Your task to perform on an android device: open app "Yahoo Mail" (install if not already installed) and enter user name: "lawsuit@inbox.com" and password: "pooch" Image 0: 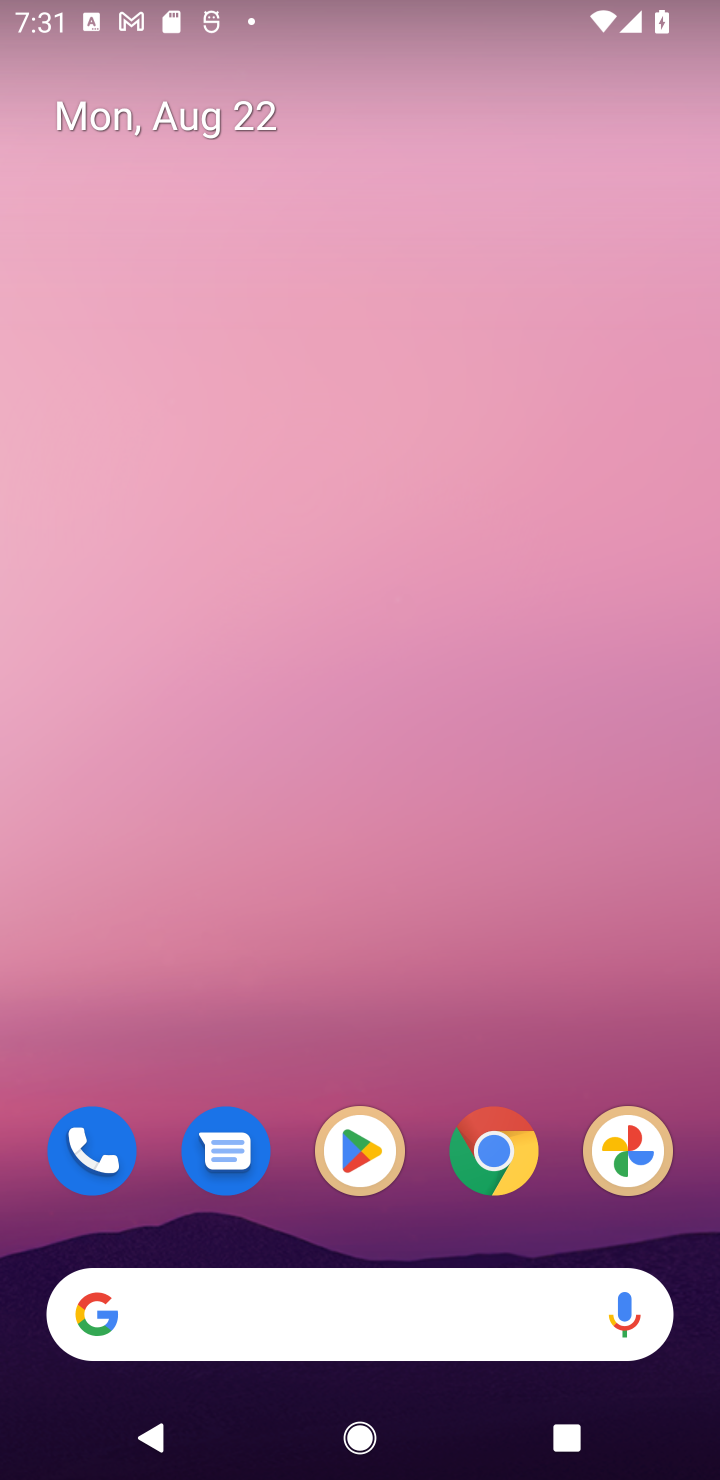
Step 0: press home button
Your task to perform on an android device: open app "Yahoo Mail" (install if not already installed) and enter user name: "lawsuit@inbox.com" and password: "pooch" Image 1: 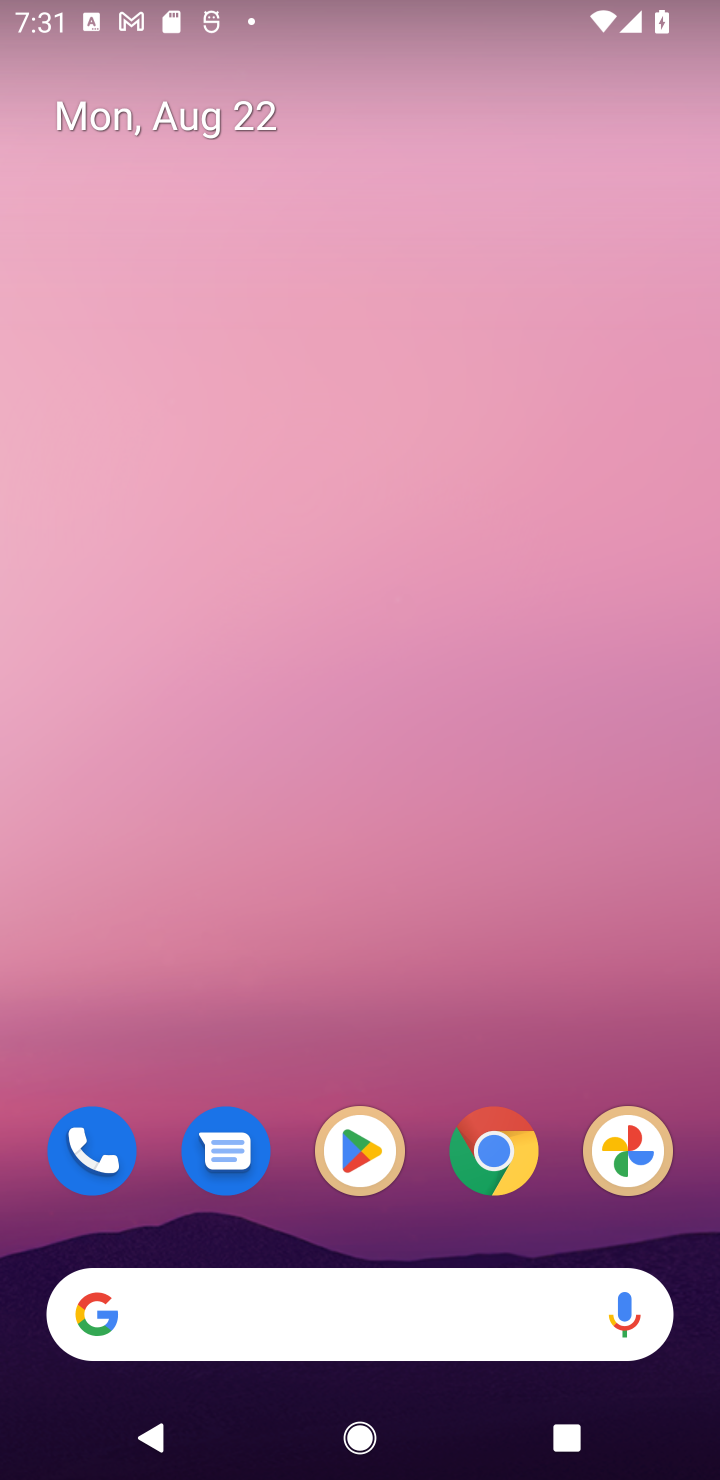
Step 1: click (349, 1141)
Your task to perform on an android device: open app "Yahoo Mail" (install if not already installed) and enter user name: "lawsuit@inbox.com" and password: "pooch" Image 2: 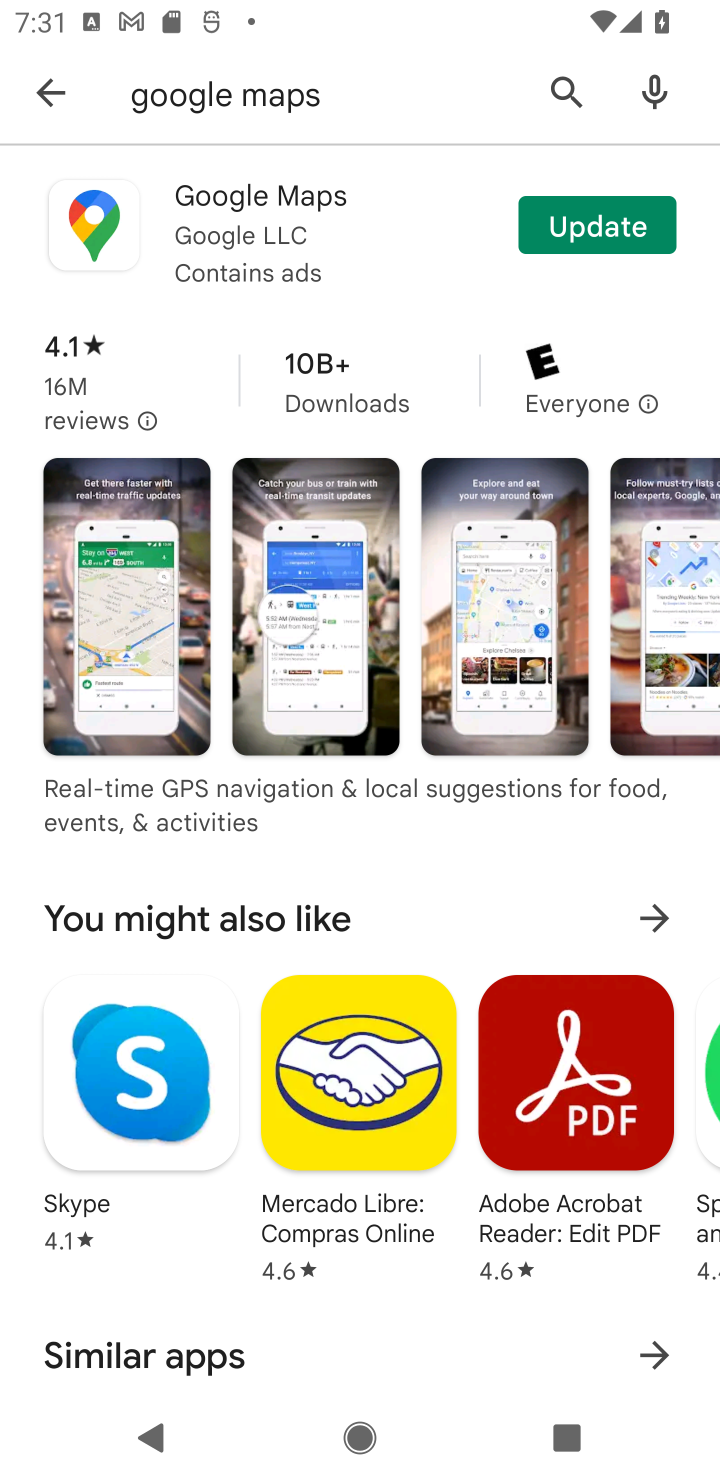
Step 2: click (569, 83)
Your task to perform on an android device: open app "Yahoo Mail" (install if not already installed) and enter user name: "lawsuit@inbox.com" and password: "pooch" Image 3: 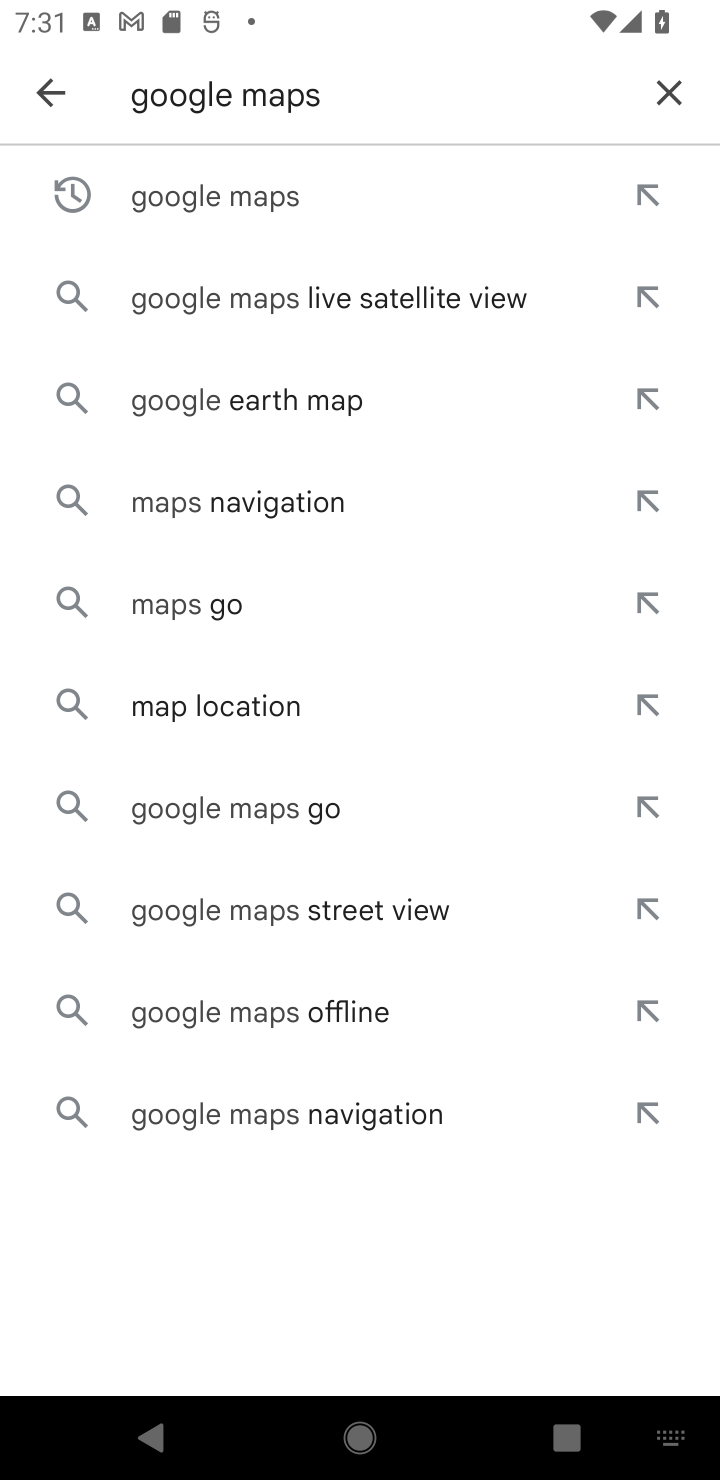
Step 3: click (664, 103)
Your task to perform on an android device: open app "Yahoo Mail" (install if not already installed) and enter user name: "lawsuit@inbox.com" and password: "pooch" Image 4: 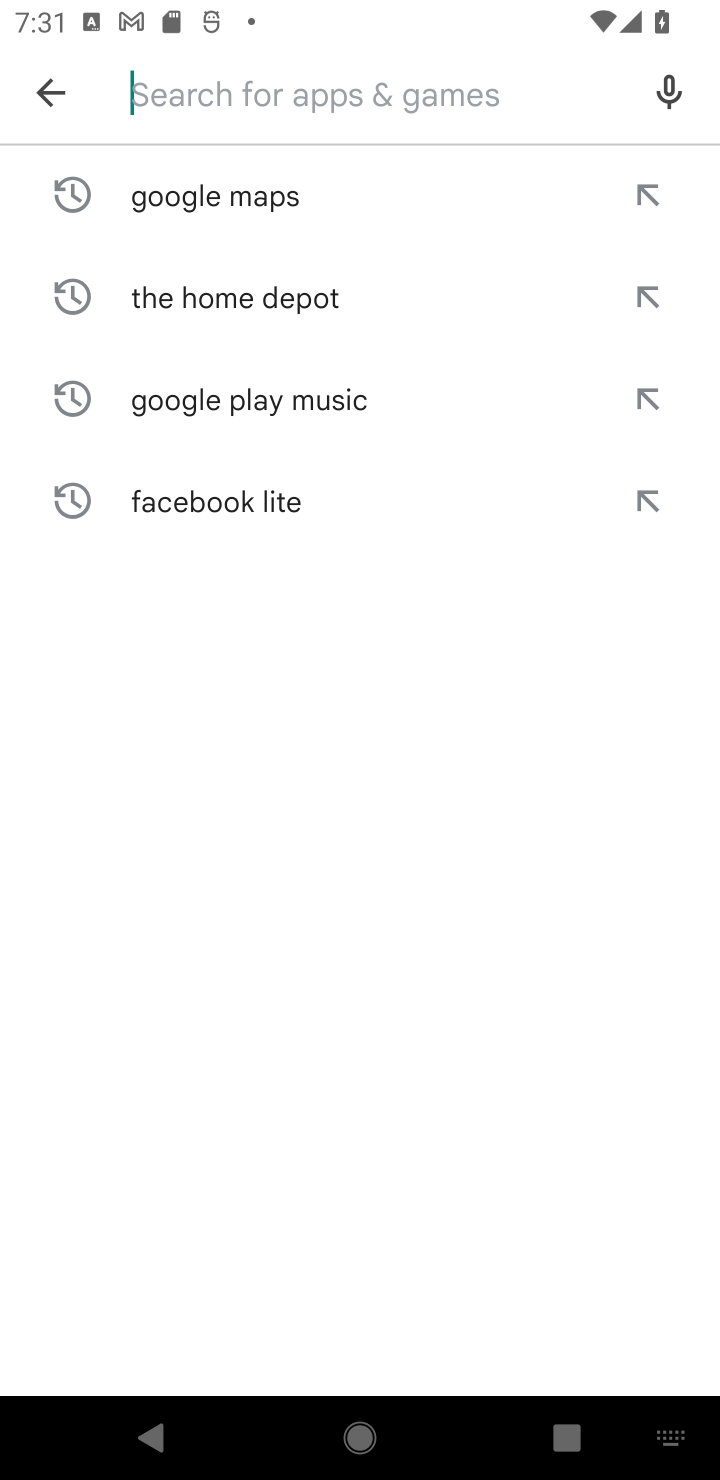
Step 4: type "Yahoo Mail"
Your task to perform on an android device: open app "Yahoo Mail" (install if not already installed) and enter user name: "lawsuit@inbox.com" and password: "pooch" Image 5: 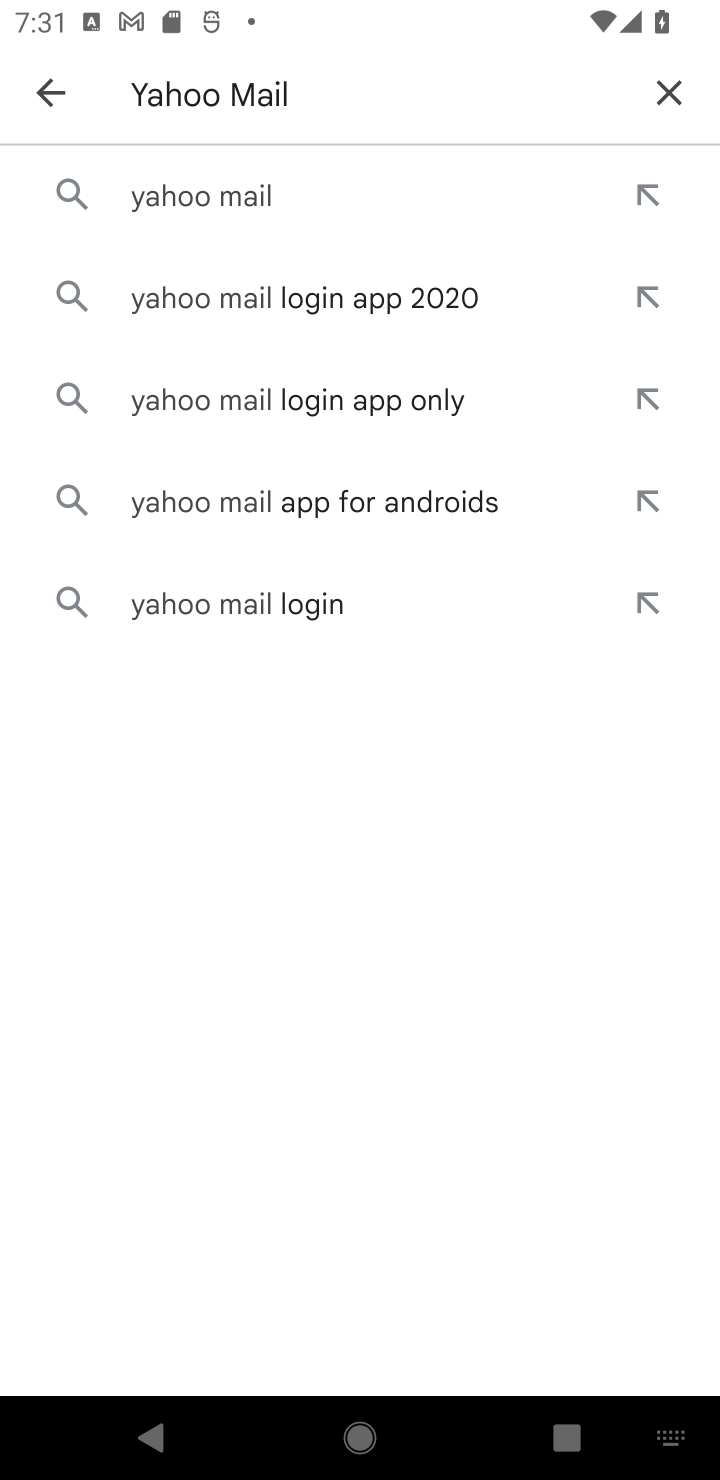
Step 5: click (233, 212)
Your task to perform on an android device: open app "Yahoo Mail" (install if not already installed) and enter user name: "lawsuit@inbox.com" and password: "pooch" Image 6: 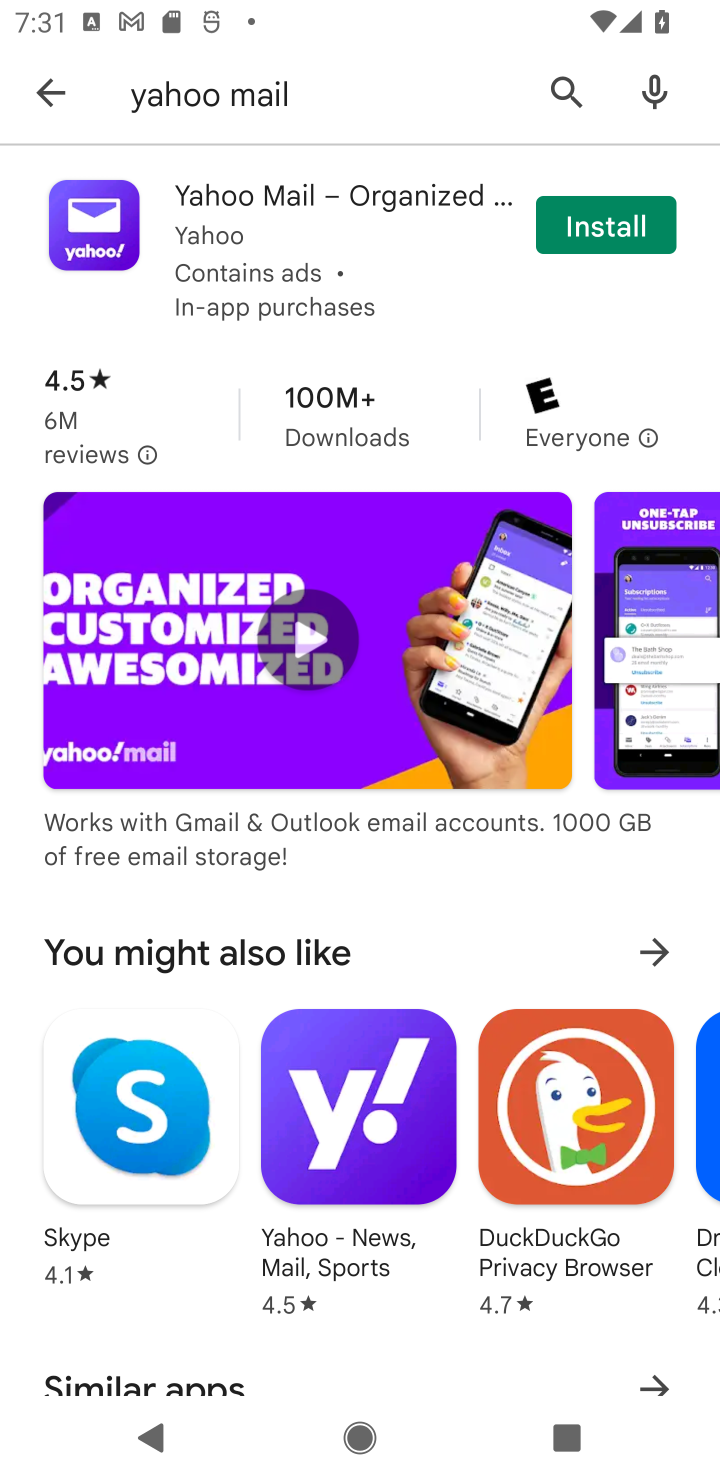
Step 6: click (621, 237)
Your task to perform on an android device: open app "Yahoo Mail" (install if not already installed) and enter user name: "lawsuit@inbox.com" and password: "pooch" Image 7: 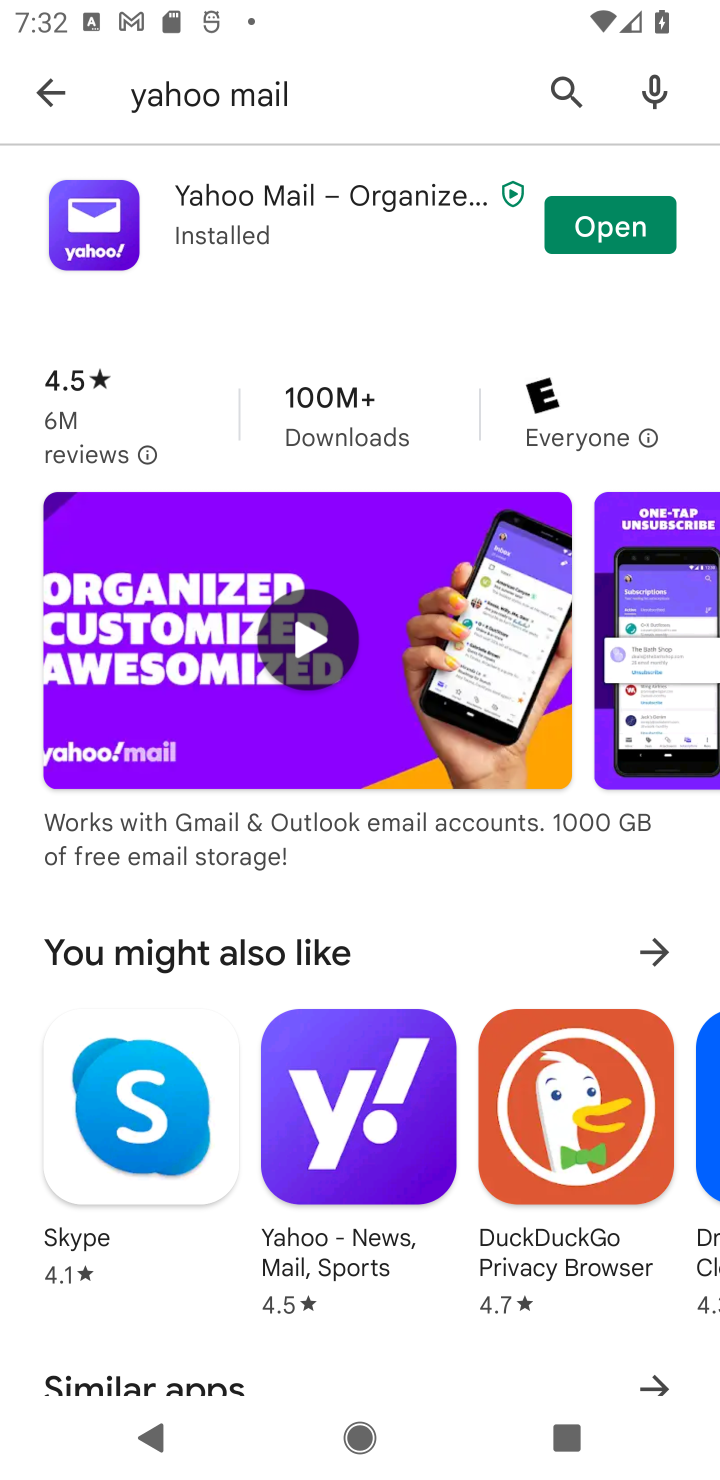
Step 7: click (634, 224)
Your task to perform on an android device: open app "Yahoo Mail" (install if not already installed) and enter user name: "lawsuit@inbox.com" and password: "pooch" Image 8: 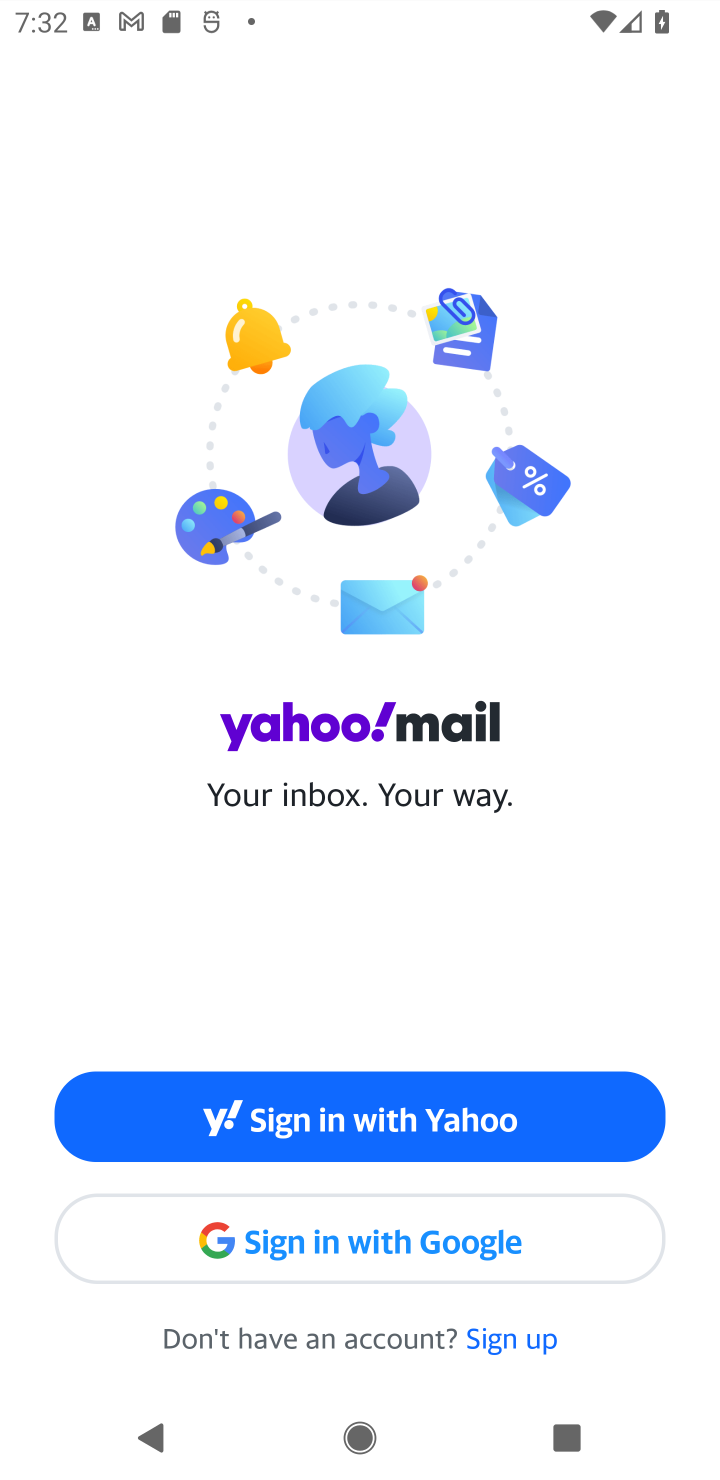
Step 8: click (523, 1338)
Your task to perform on an android device: open app "Yahoo Mail" (install if not already installed) and enter user name: "lawsuit@inbox.com" and password: "pooch" Image 9: 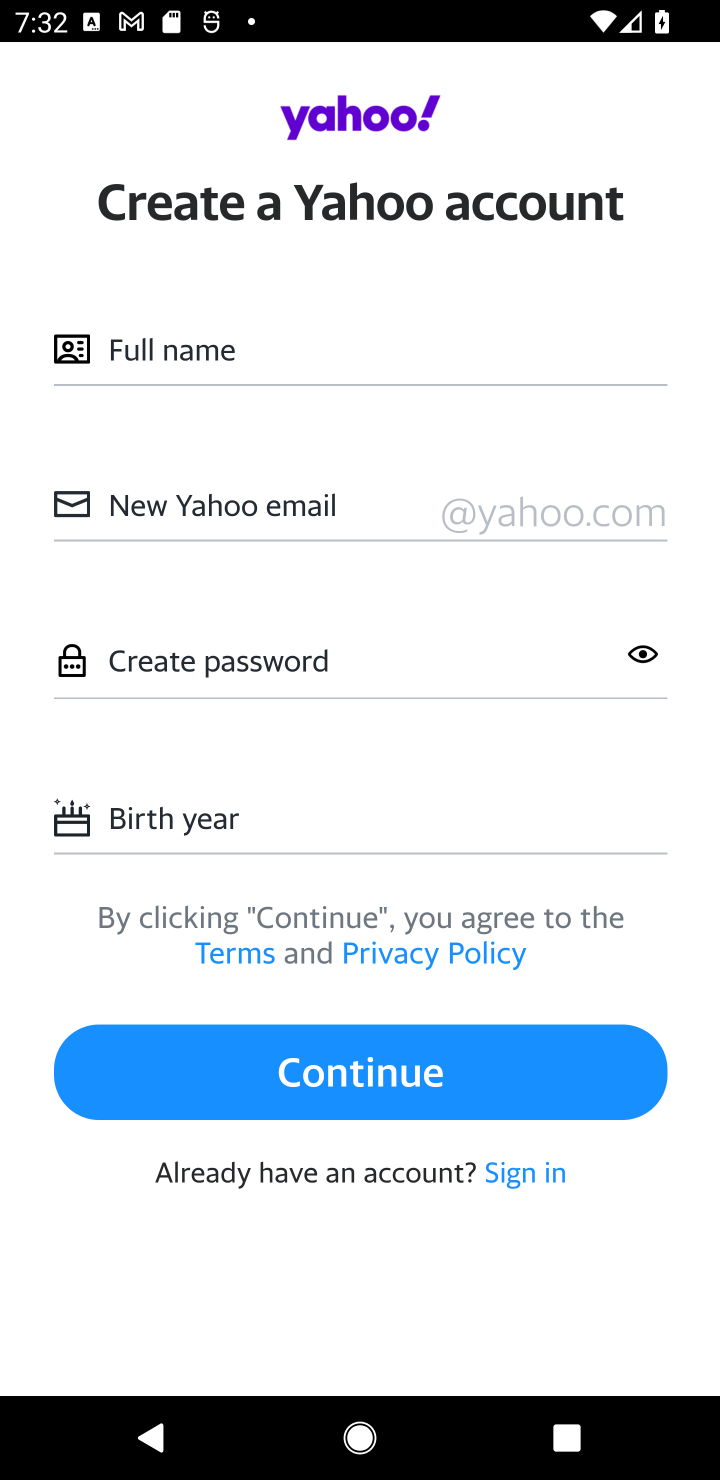
Step 9: press back button
Your task to perform on an android device: open app "Yahoo Mail" (install if not already installed) and enter user name: "lawsuit@inbox.com" and password: "pooch" Image 10: 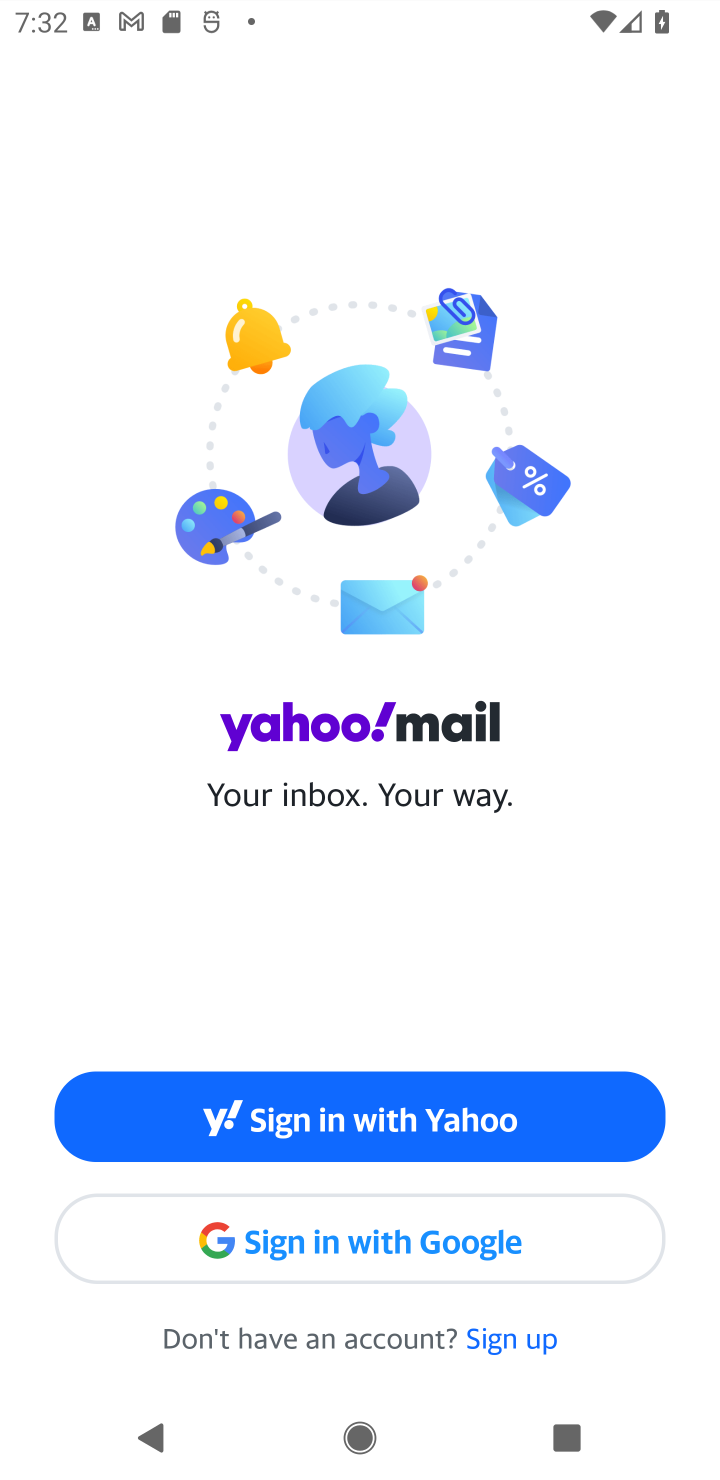
Step 10: click (428, 1142)
Your task to perform on an android device: open app "Yahoo Mail" (install if not already installed) and enter user name: "lawsuit@inbox.com" and password: "pooch" Image 11: 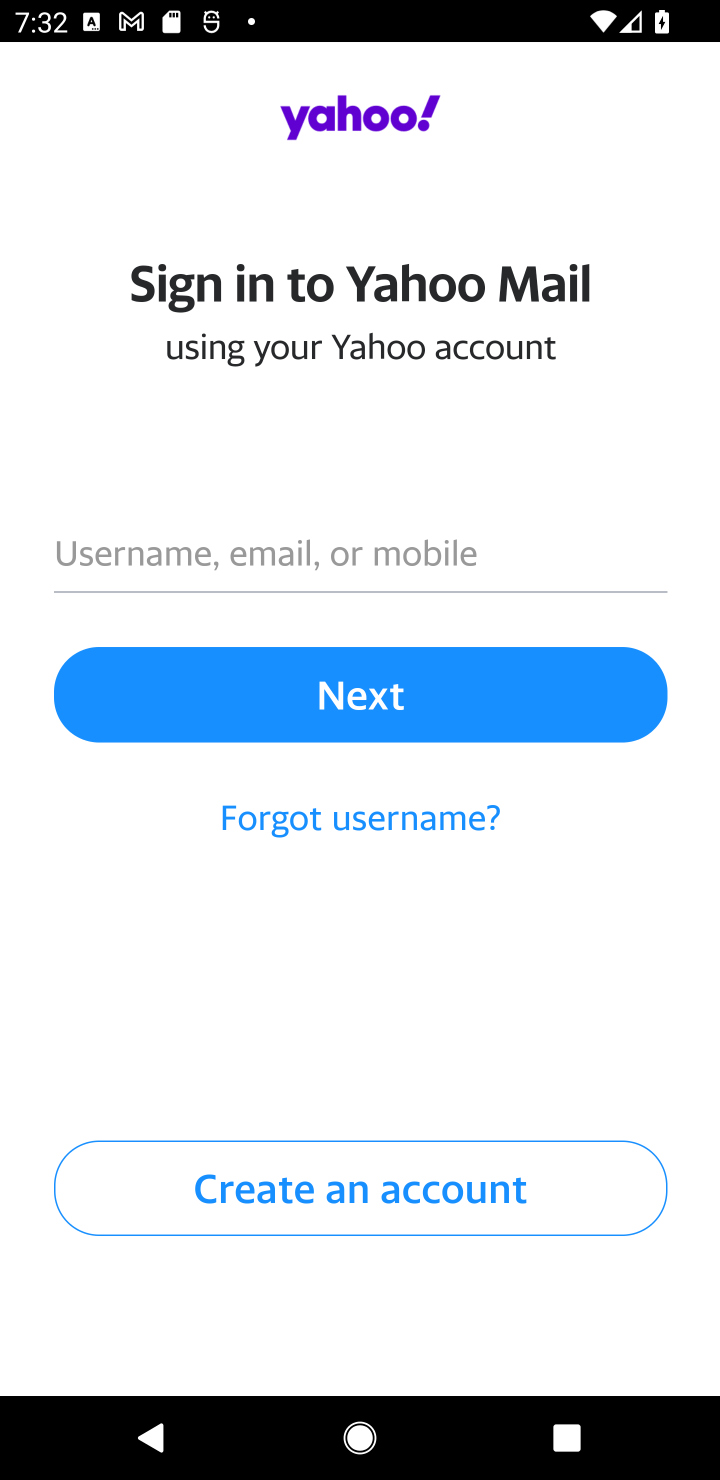
Step 11: click (264, 552)
Your task to perform on an android device: open app "Yahoo Mail" (install if not already installed) and enter user name: "lawsuit@inbox.com" and password: "pooch" Image 12: 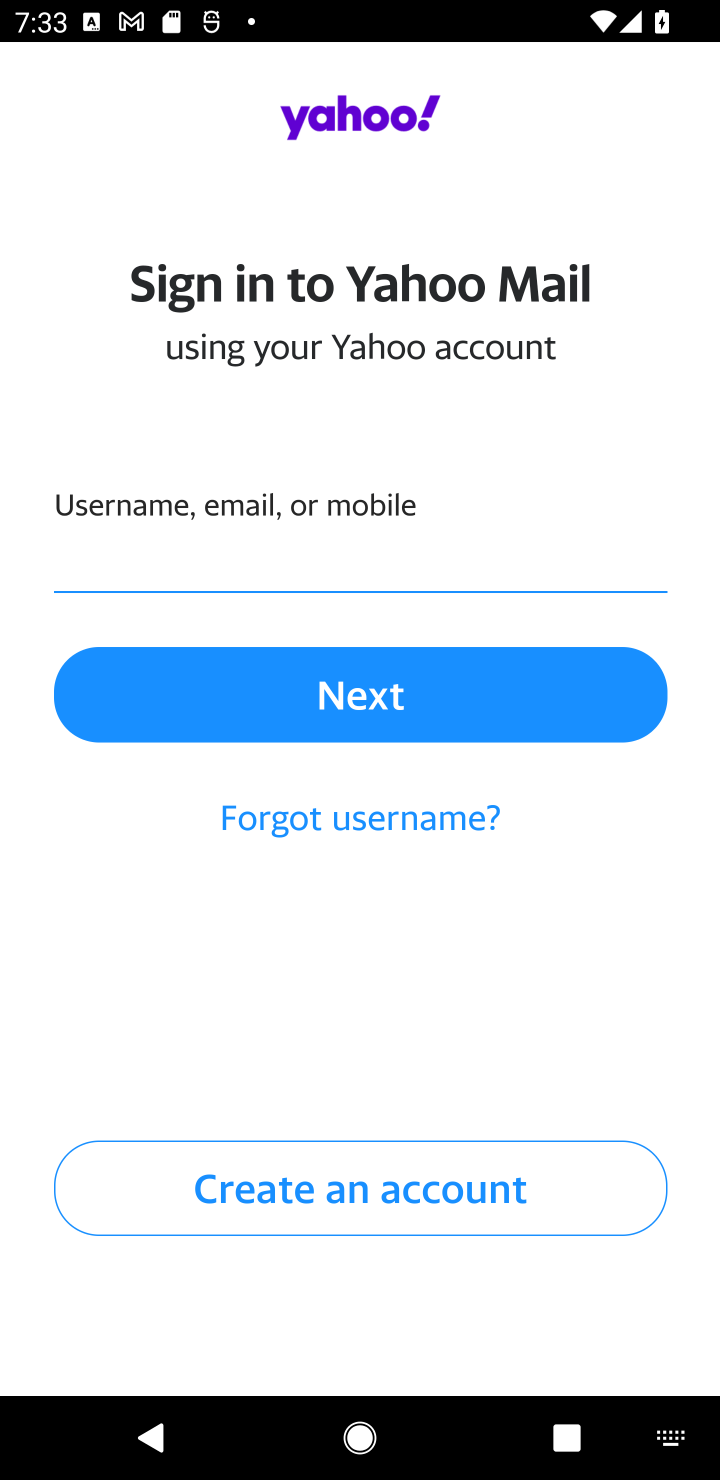
Step 12: type "lawsuit@inbox.com"
Your task to perform on an android device: open app "Yahoo Mail" (install if not already installed) and enter user name: "lawsuit@inbox.com" and password: "pooch" Image 13: 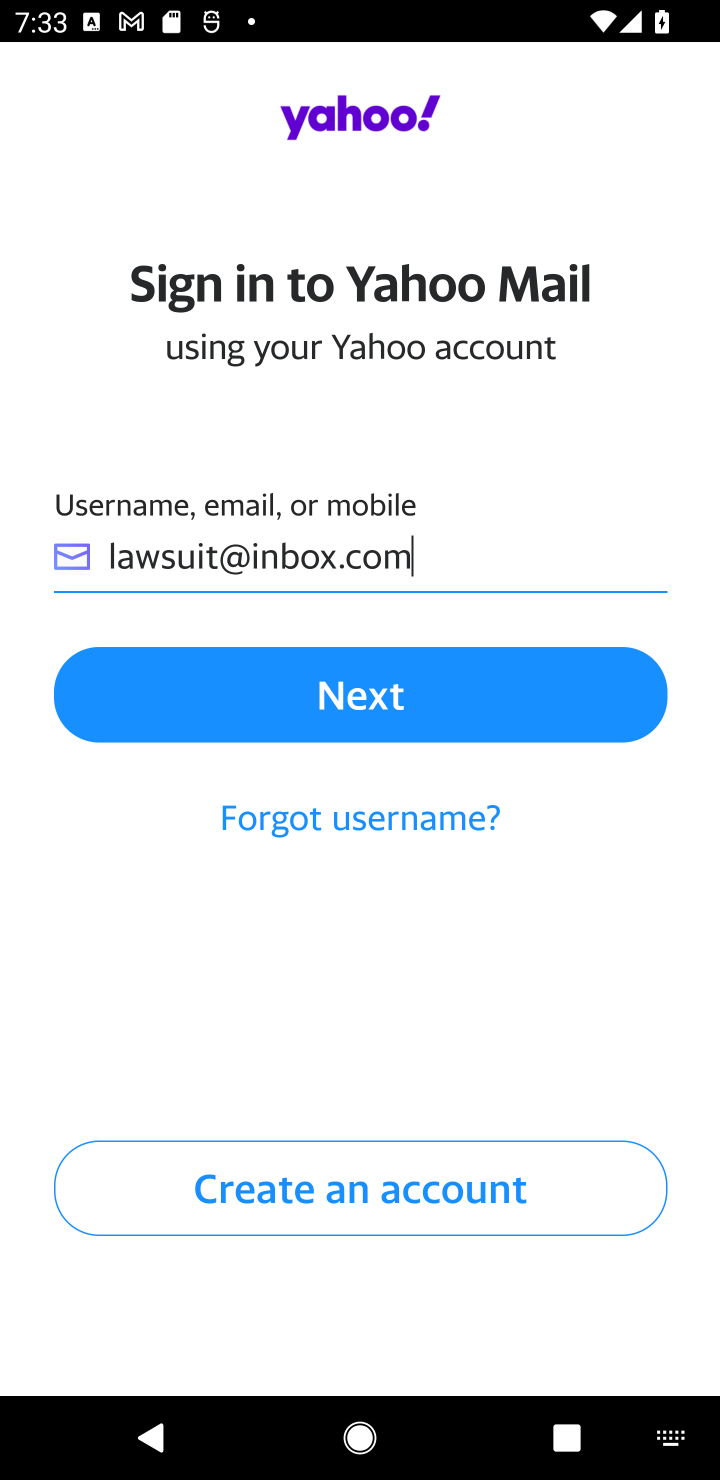
Step 13: click (485, 699)
Your task to perform on an android device: open app "Yahoo Mail" (install if not already installed) and enter user name: "lawsuit@inbox.com" and password: "pooch" Image 14: 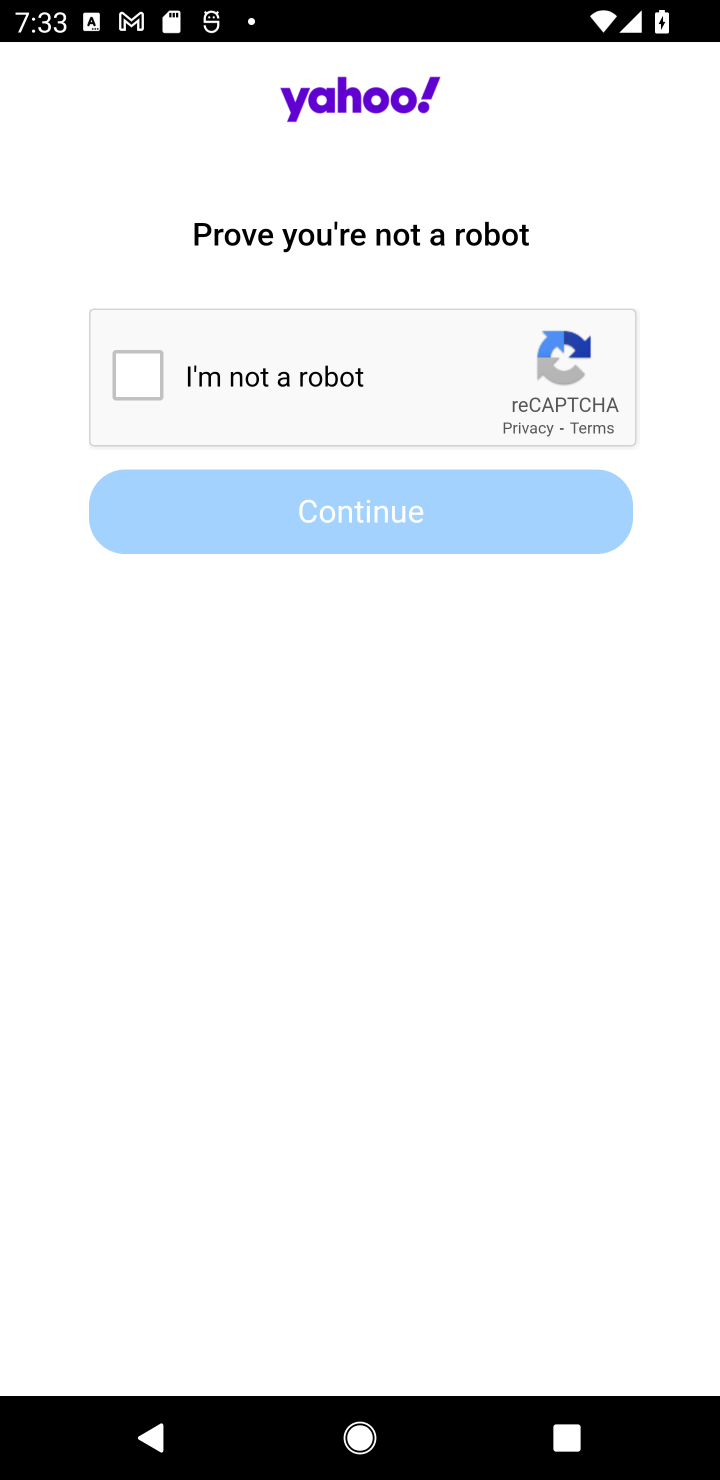
Step 14: task complete